Your task to perform on an android device: turn off translation in the chrome app Image 0: 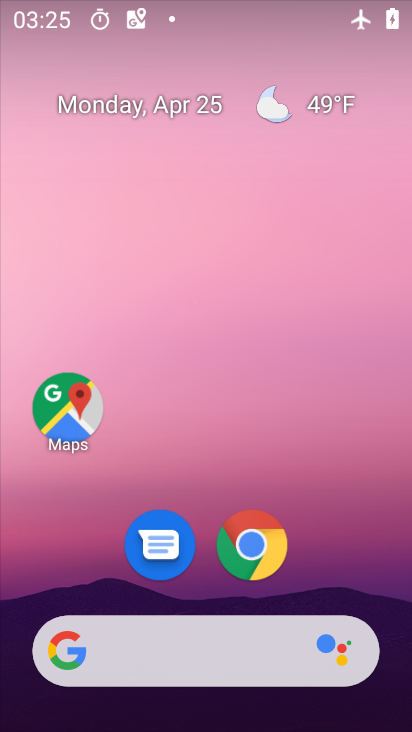
Step 0: click (247, 545)
Your task to perform on an android device: turn off translation in the chrome app Image 1: 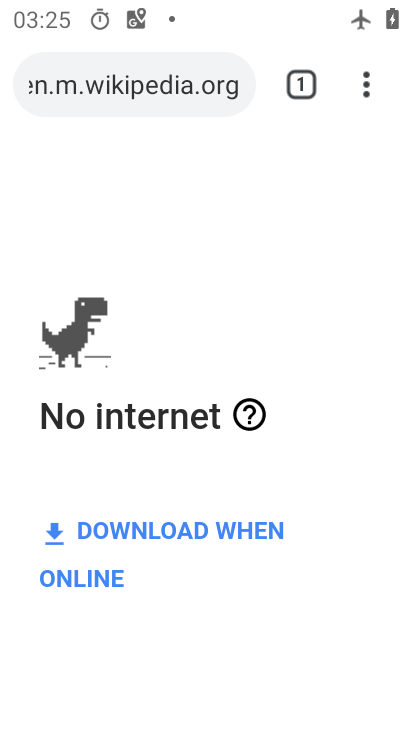
Step 1: click (372, 82)
Your task to perform on an android device: turn off translation in the chrome app Image 2: 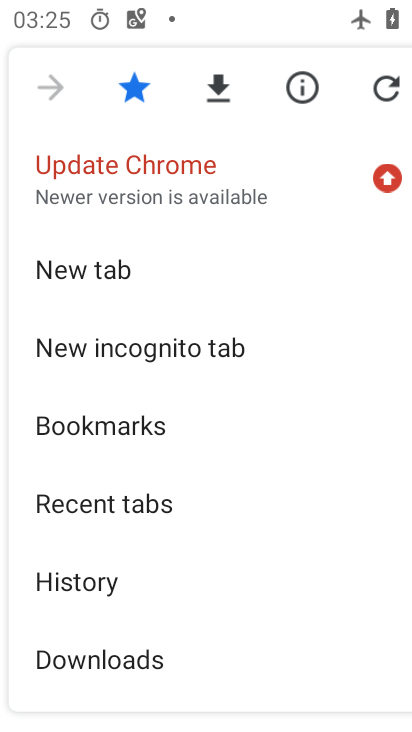
Step 2: drag from (205, 454) to (192, 328)
Your task to perform on an android device: turn off translation in the chrome app Image 3: 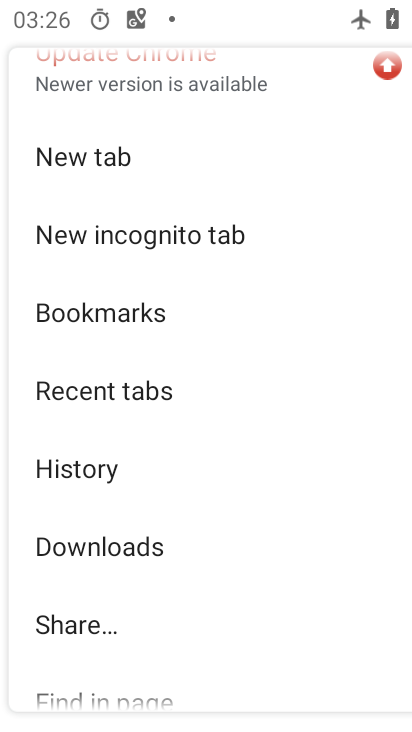
Step 3: drag from (165, 510) to (185, 419)
Your task to perform on an android device: turn off translation in the chrome app Image 4: 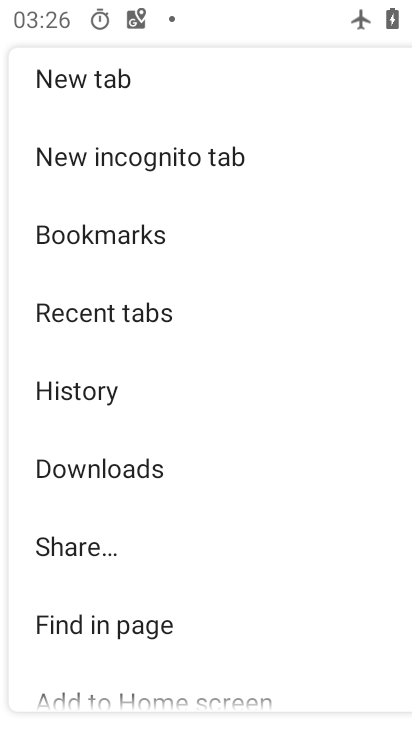
Step 4: drag from (147, 506) to (173, 437)
Your task to perform on an android device: turn off translation in the chrome app Image 5: 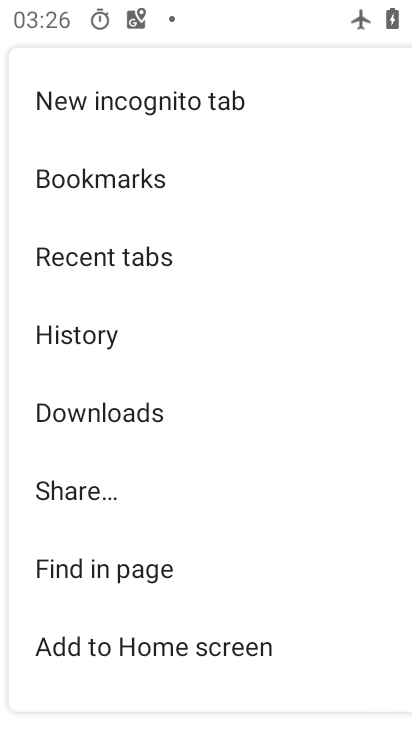
Step 5: drag from (145, 515) to (177, 443)
Your task to perform on an android device: turn off translation in the chrome app Image 6: 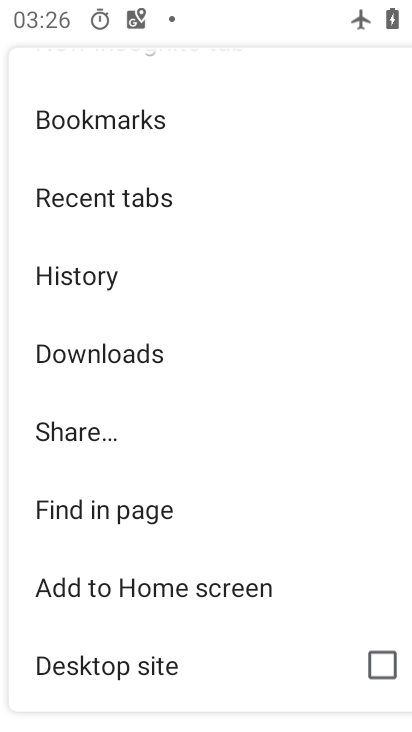
Step 6: drag from (167, 532) to (218, 444)
Your task to perform on an android device: turn off translation in the chrome app Image 7: 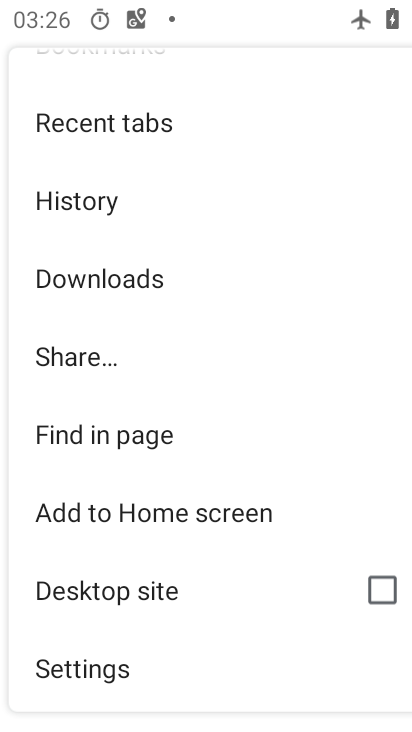
Step 7: drag from (166, 555) to (205, 447)
Your task to perform on an android device: turn off translation in the chrome app Image 8: 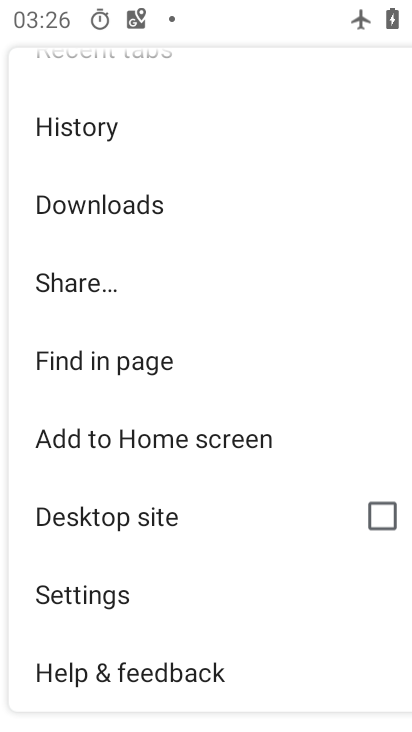
Step 8: click (109, 600)
Your task to perform on an android device: turn off translation in the chrome app Image 9: 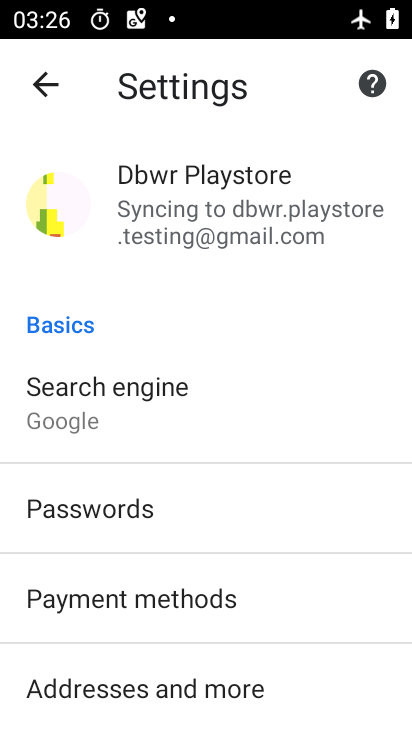
Step 9: drag from (189, 573) to (271, 411)
Your task to perform on an android device: turn off translation in the chrome app Image 10: 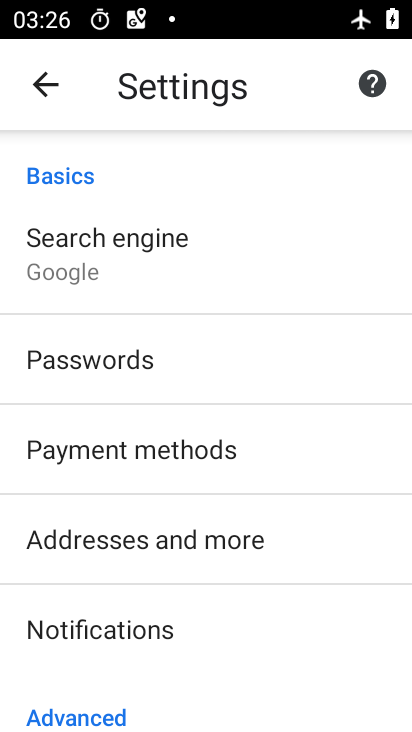
Step 10: drag from (227, 602) to (284, 458)
Your task to perform on an android device: turn off translation in the chrome app Image 11: 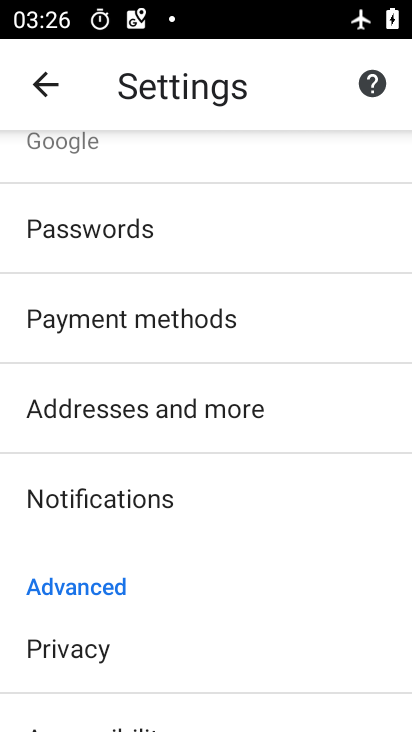
Step 11: drag from (189, 596) to (279, 473)
Your task to perform on an android device: turn off translation in the chrome app Image 12: 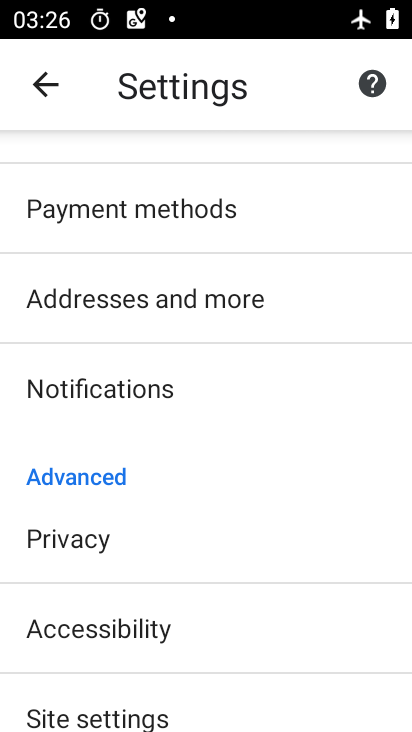
Step 12: drag from (206, 613) to (275, 509)
Your task to perform on an android device: turn off translation in the chrome app Image 13: 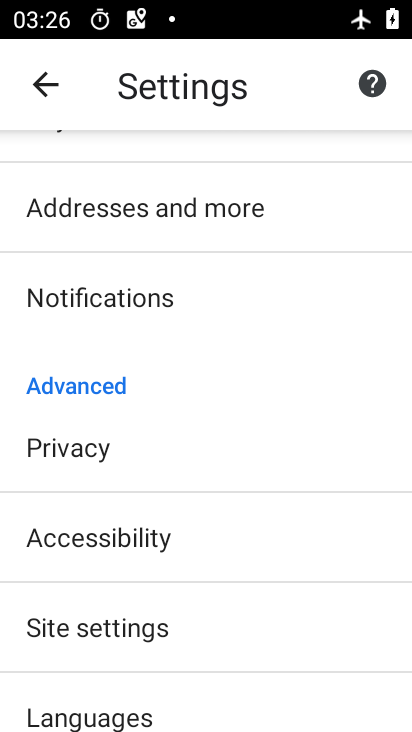
Step 13: drag from (199, 651) to (277, 540)
Your task to perform on an android device: turn off translation in the chrome app Image 14: 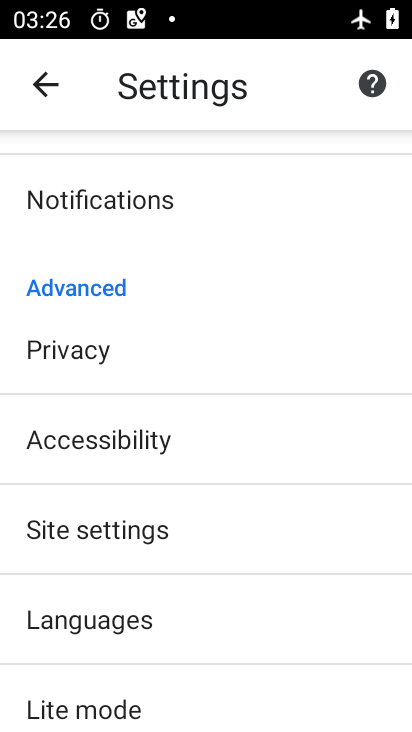
Step 14: click (146, 626)
Your task to perform on an android device: turn off translation in the chrome app Image 15: 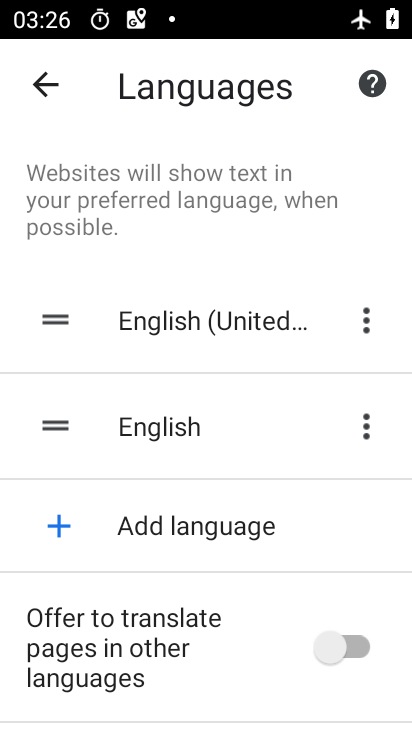
Step 15: task complete